Your task to perform on an android device: Add "logitech g pro" to the cart on target.com Image 0: 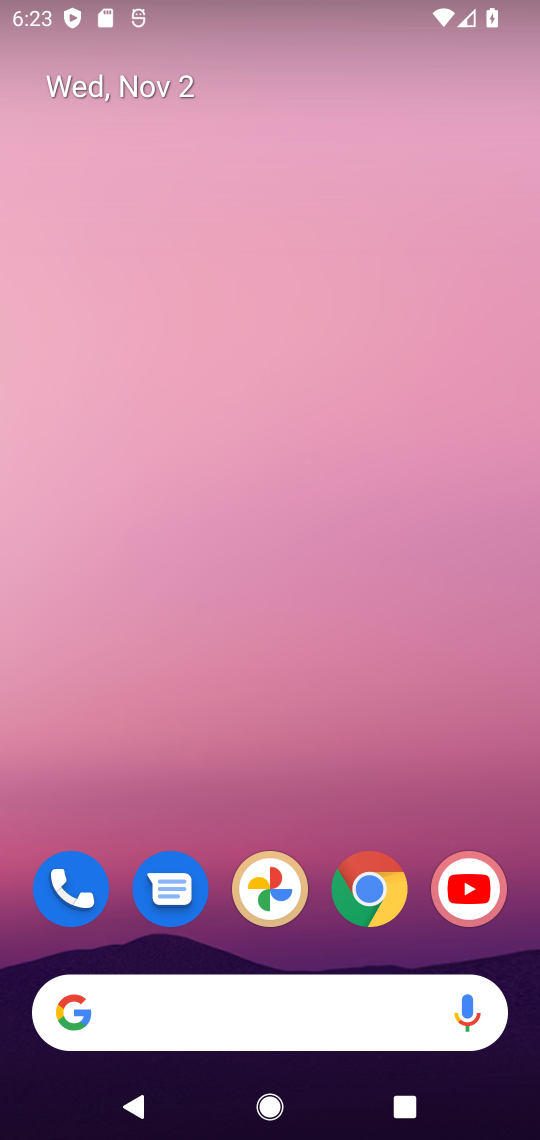
Step 0: click (389, 868)
Your task to perform on an android device: Add "logitech g pro" to the cart on target.com Image 1: 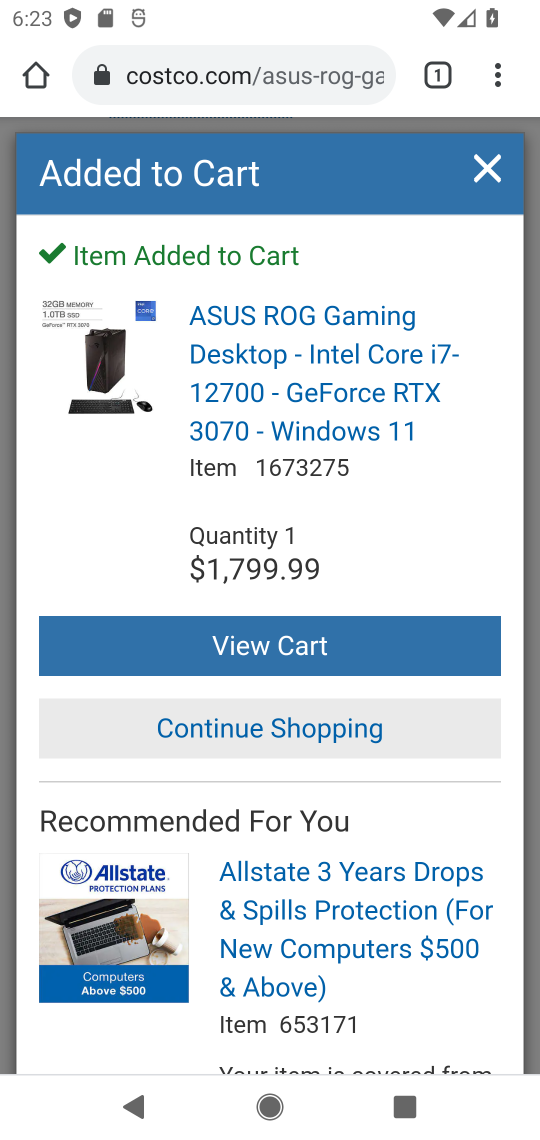
Step 1: click (321, 82)
Your task to perform on an android device: Add "logitech g pro" to the cart on target.com Image 2: 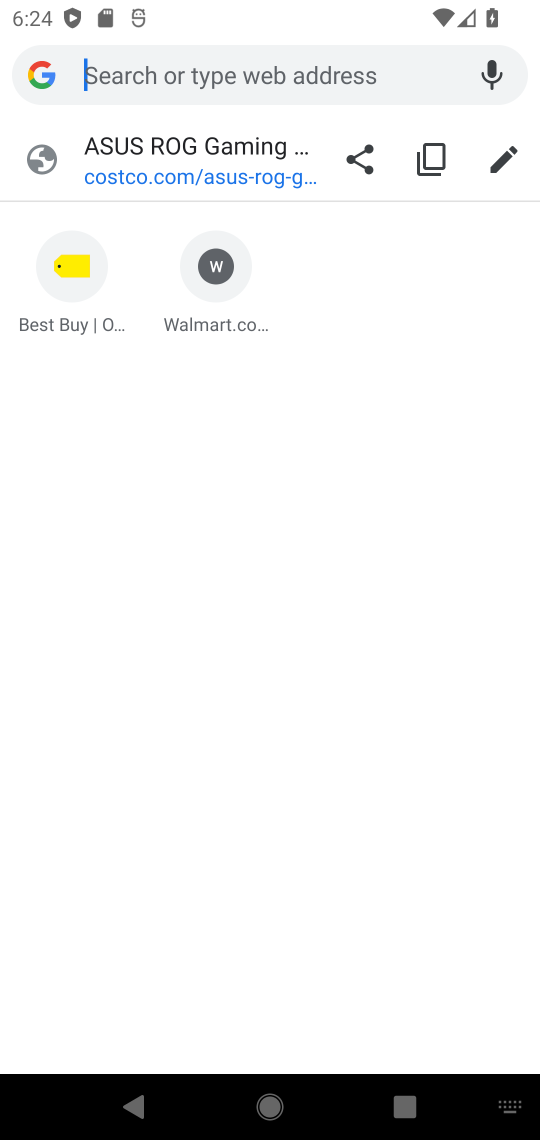
Step 2: type "target.com"
Your task to perform on an android device: Add "logitech g pro" to the cart on target.com Image 3: 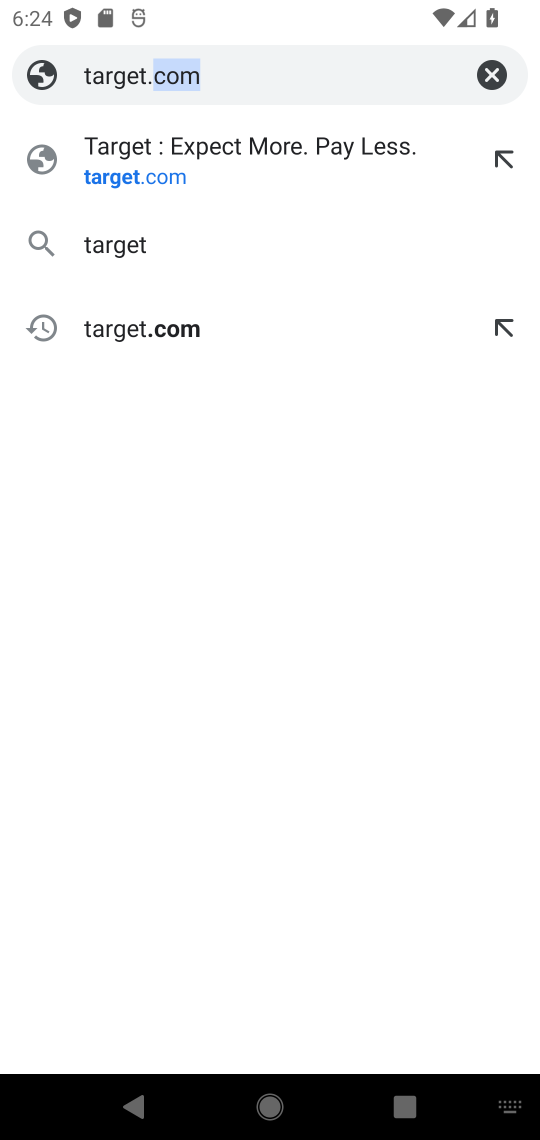
Step 3: press enter
Your task to perform on an android device: Add "logitech g pro" to the cart on target.com Image 4: 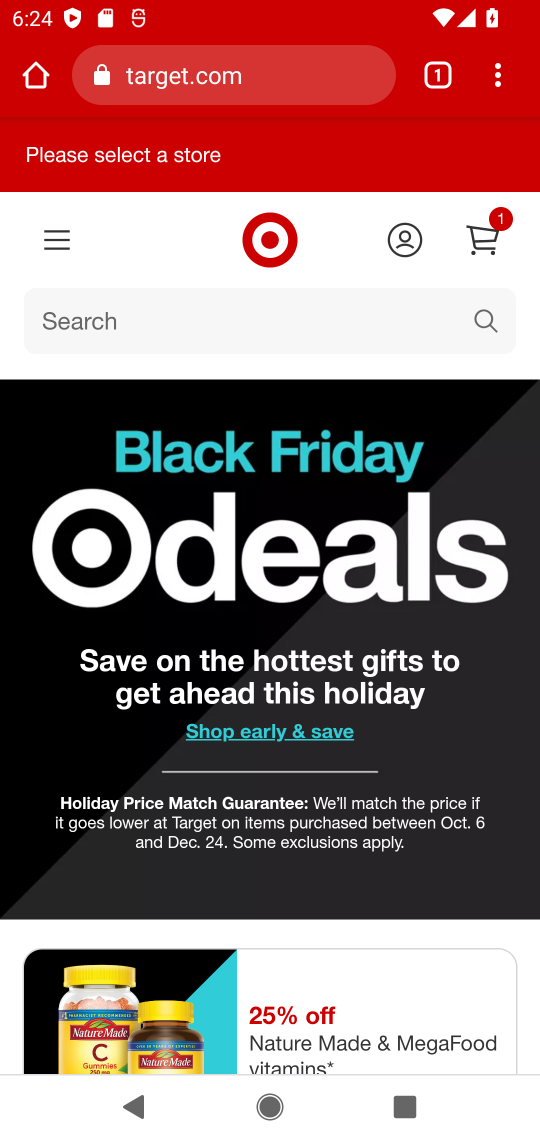
Step 4: click (300, 327)
Your task to perform on an android device: Add "logitech g pro" to the cart on target.com Image 5: 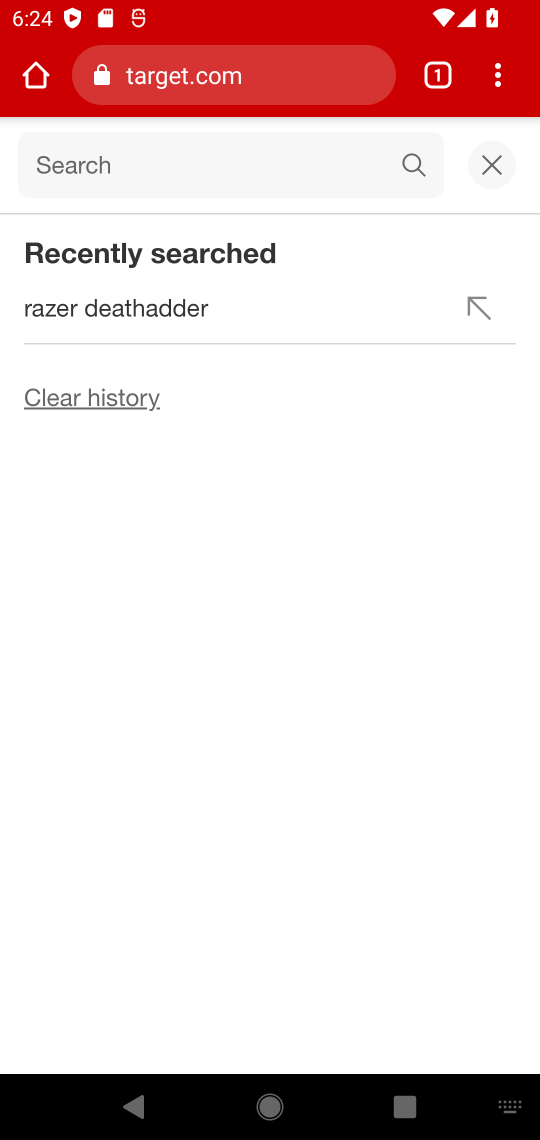
Step 5: type "logitech g pro"
Your task to perform on an android device: Add "logitech g pro" to the cart on target.com Image 6: 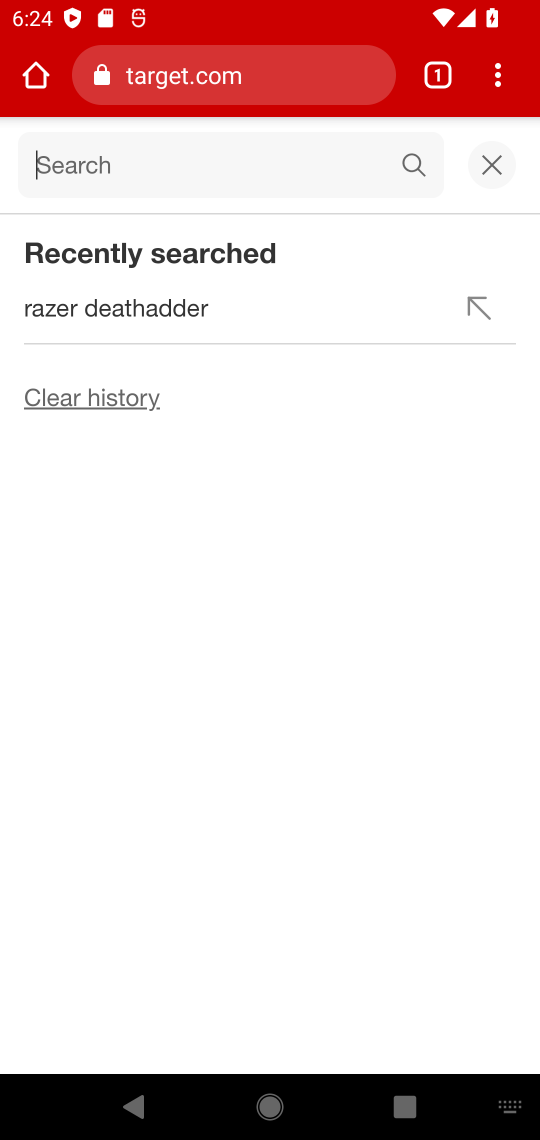
Step 6: press enter
Your task to perform on an android device: Add "logitech g pro" to the cart on target.com Image 7: 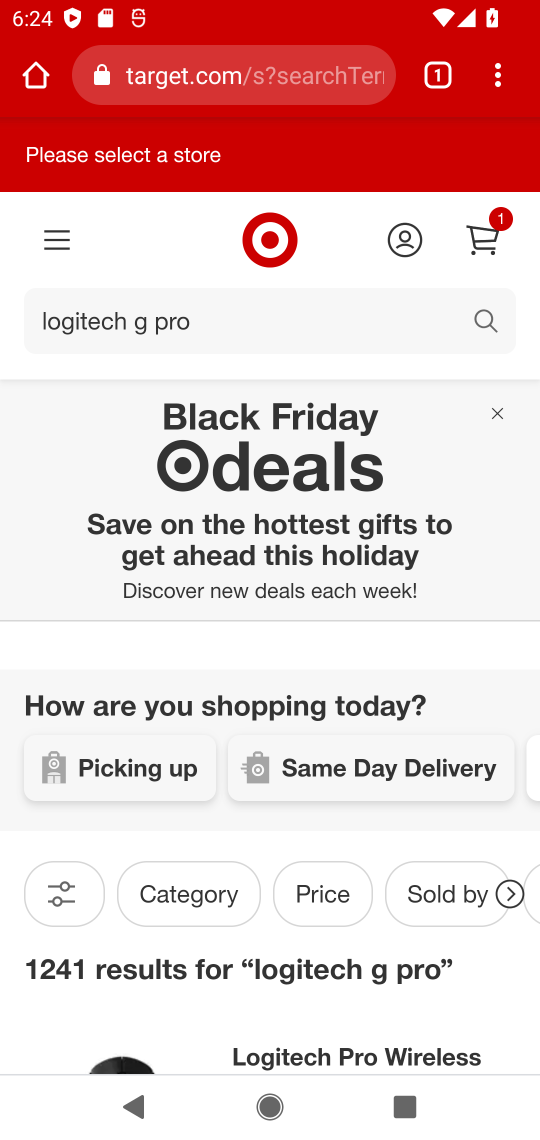
Step 7: drag from (313, 985) to (301, 618)
Your task to perform on an android device: Add "logitech g pro" to the cart on target.com Image 8: 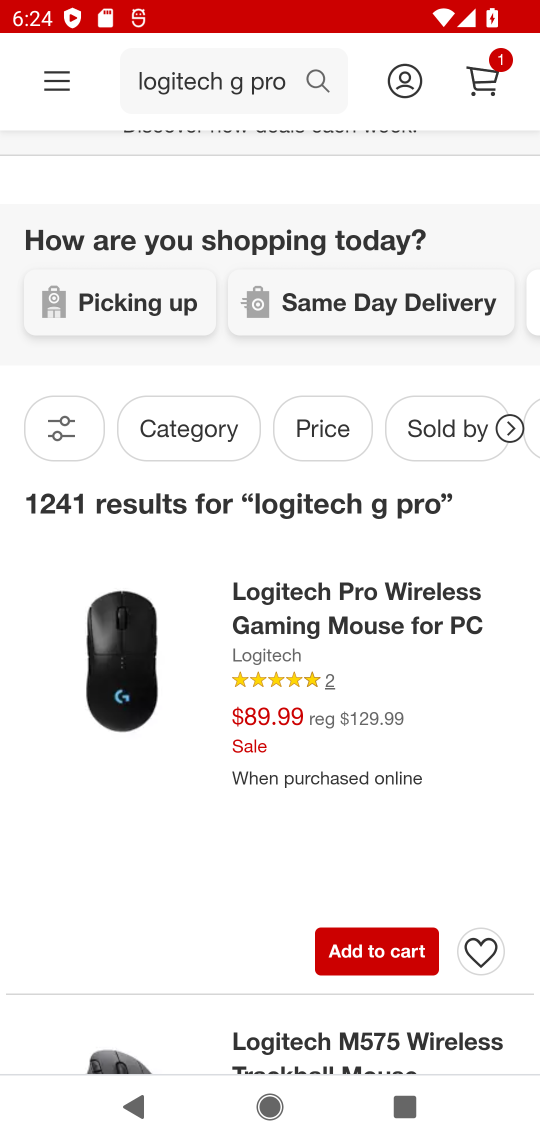
Step 8: drag from (394, 694) to (414, 398)
Your task to perform on an android device: Add "logitech g pro" to the cart on target.com Image 9: 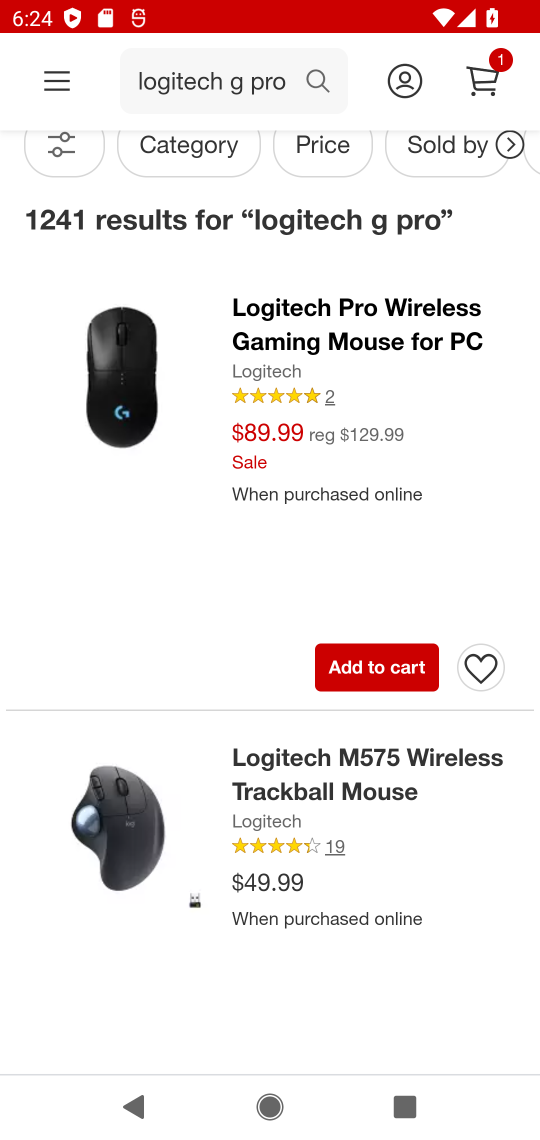
Step 9: drag from (390, 956) to (444, 481)
Your task to perform on an android device: Add "logitech g pro" to the cart on target.com Image 10: 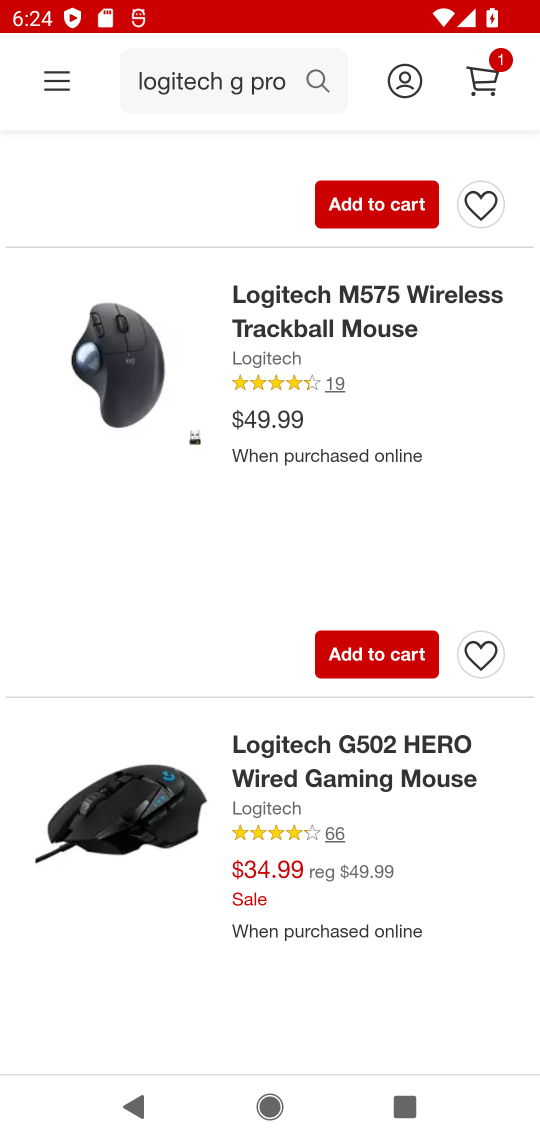
Step 10: drag from (456, 862) to (493, 423)
Your task to perform on an android device: Add "logitech g pro" to the cart on target.com Image 11: 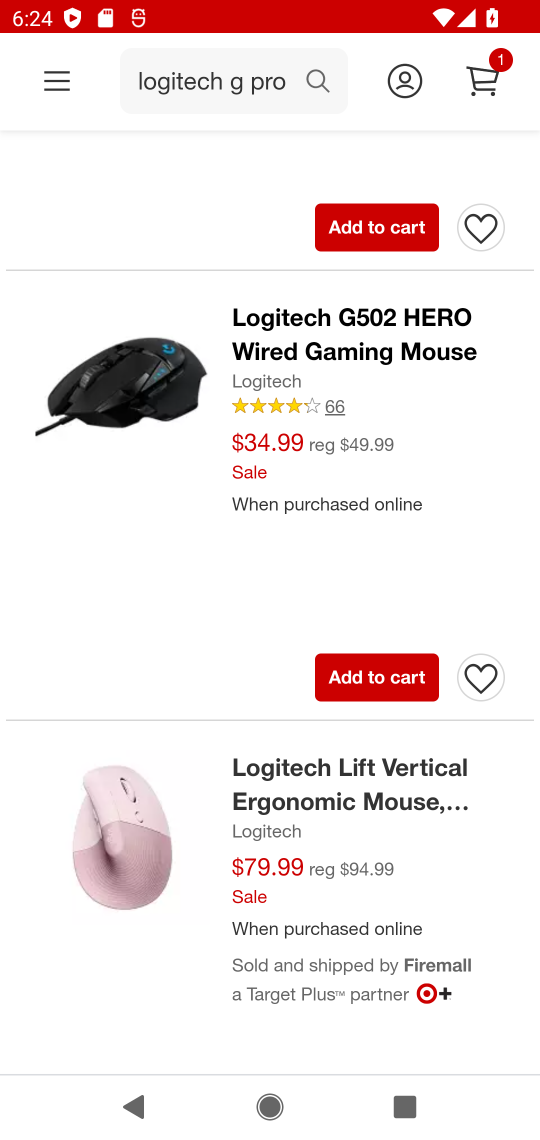
Step 11: drag from (434, 894) to (407, 495)
Your task to perform on an android device: Add "logitech g pro" to the cart on target.com Image 12: 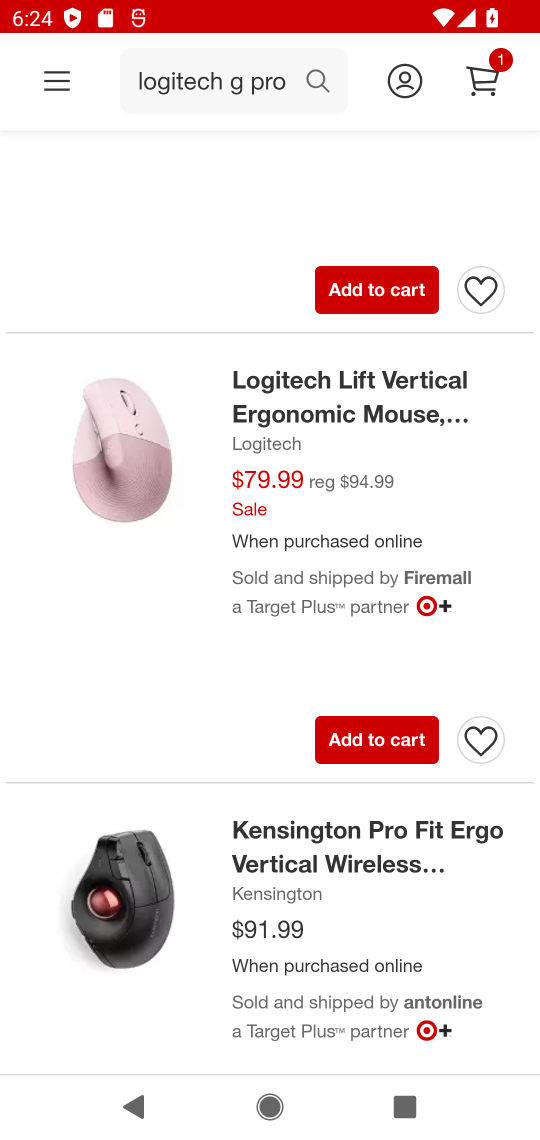
Step 12: drag from (427, 932) to (442, 508)
Your task to perform on an android device: Add "logitech g pro" to the cart on target.com Image 13: 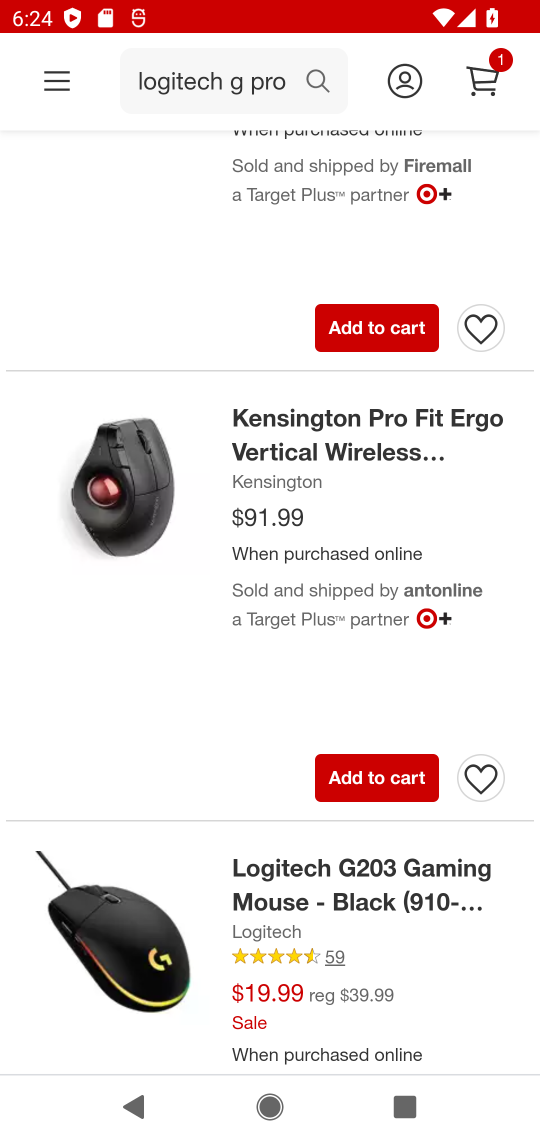
Step 13: drag from (409, 463) to (485, 1023)
Your task to perform on an android device: Add "logitech g pro" to the cart on target.com Image 14: 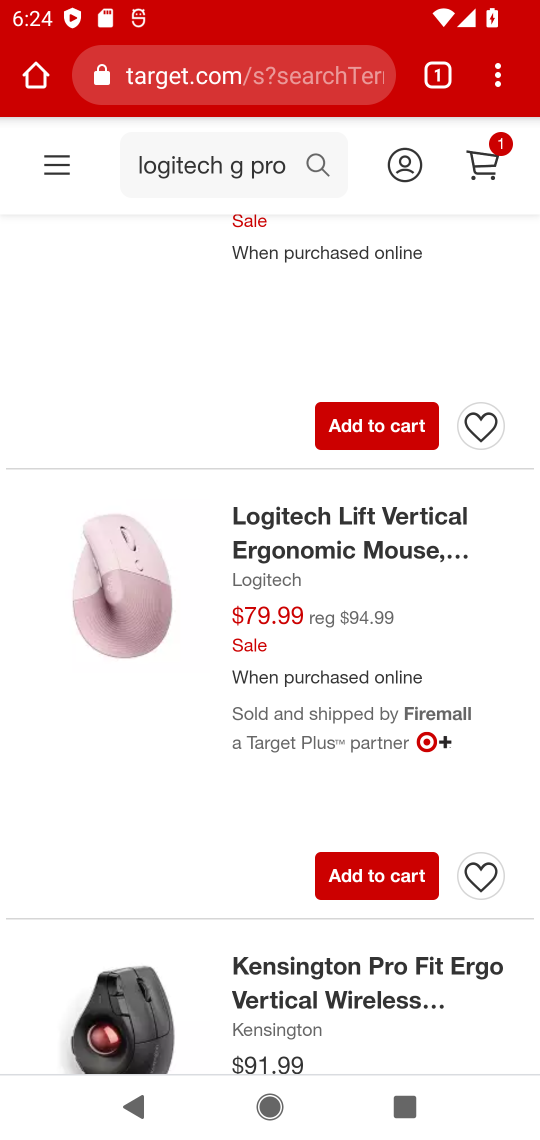
Step 14: drag from (420, 526) to (412, 900)
Your task to perform on an android device: Add "logitech g pro" to the cart on target.com Image 15: 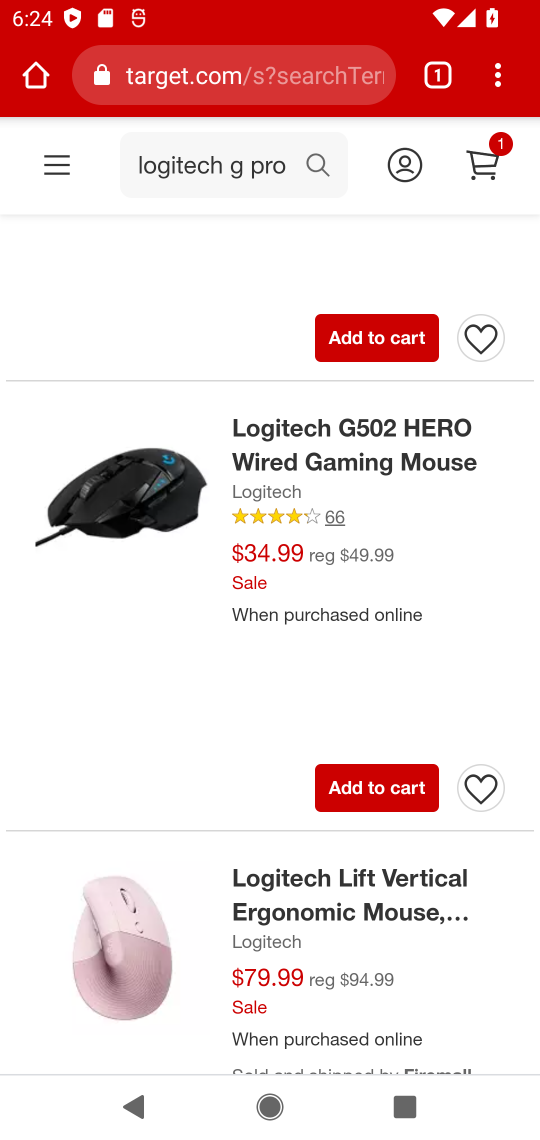
Step 15: drag from (370, 416) to (401, 911)
Your task to perform on an android device: Add "logitech g pro" to the cart on target.com Image 16: 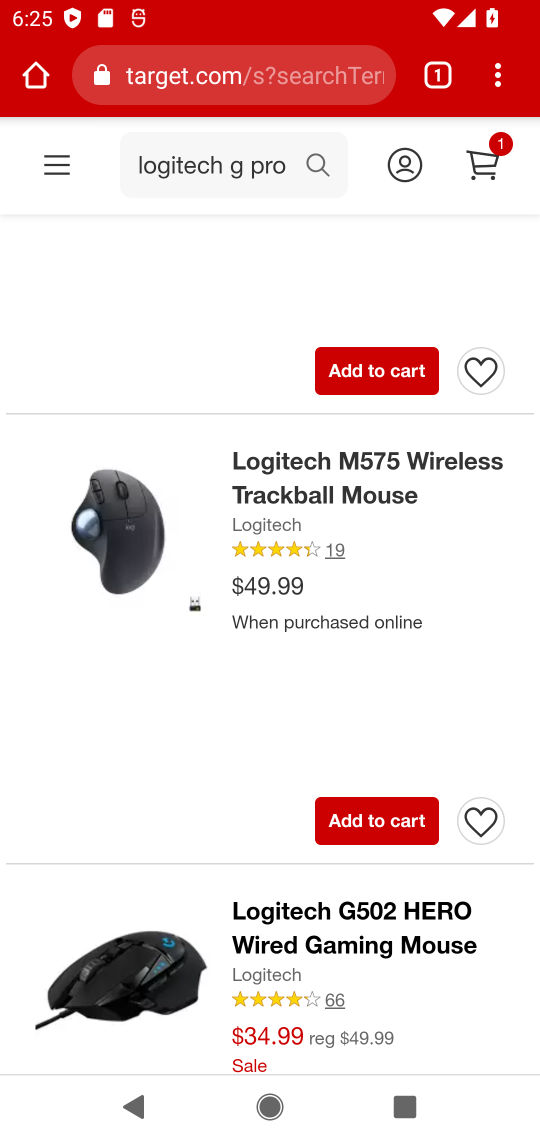
Step 16: drag from (217, 337) to (260, 847)
Your task to perform on an android device: Add "logitech g pro" to the cart on target.com Image 17: 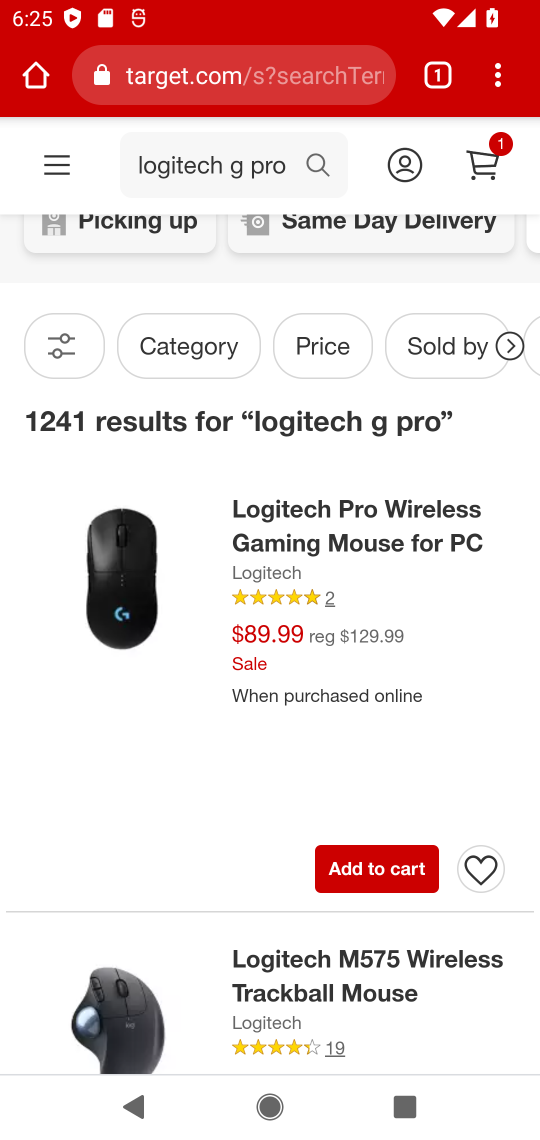
Step 17: click (120, 565)
Your task to perform on an android device: Add "logitech g pro" to the cart on target.com Image 18: 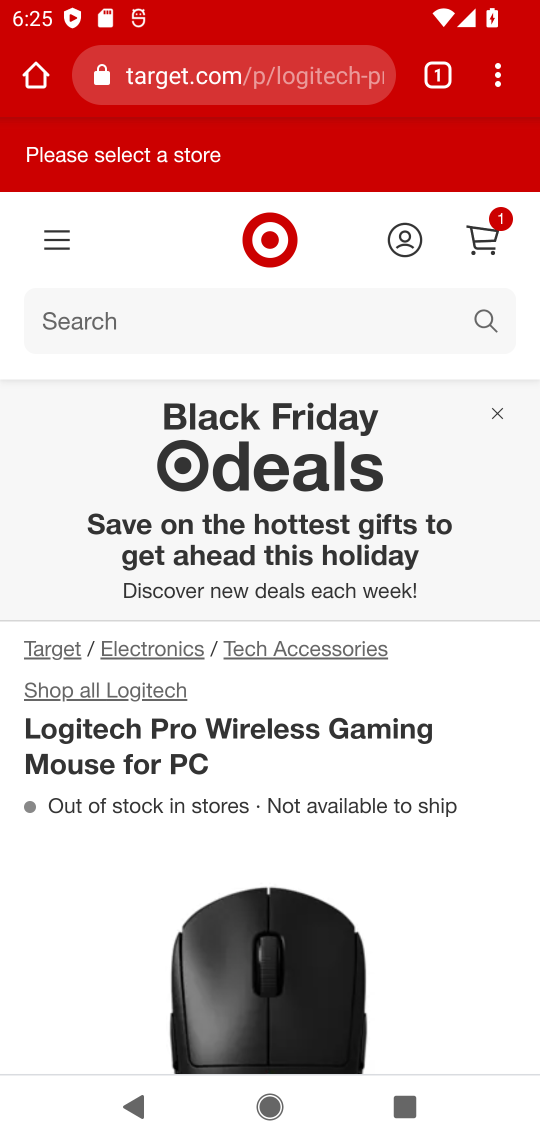
Step 18: drag from (387, 925) to (337, 380)
Your task to perform on an android device: Add "logitech g pro" to the cart on target.com Image 19: 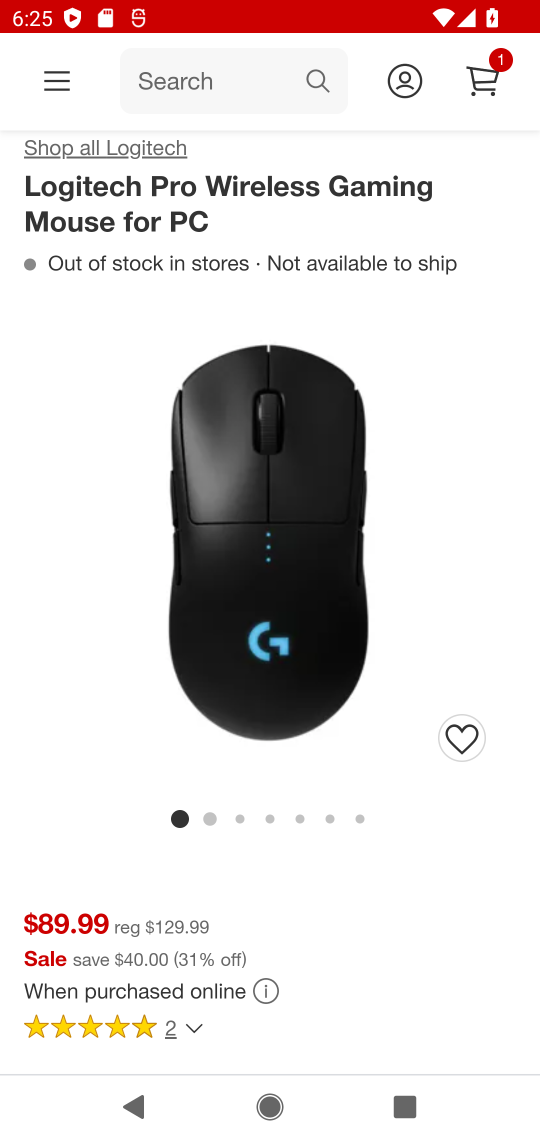
Step 19: drag from (374, 828) to (430, 332)
Your task to perform on an android device: Add "logitech g pro" to the cart on target.com Image 20: 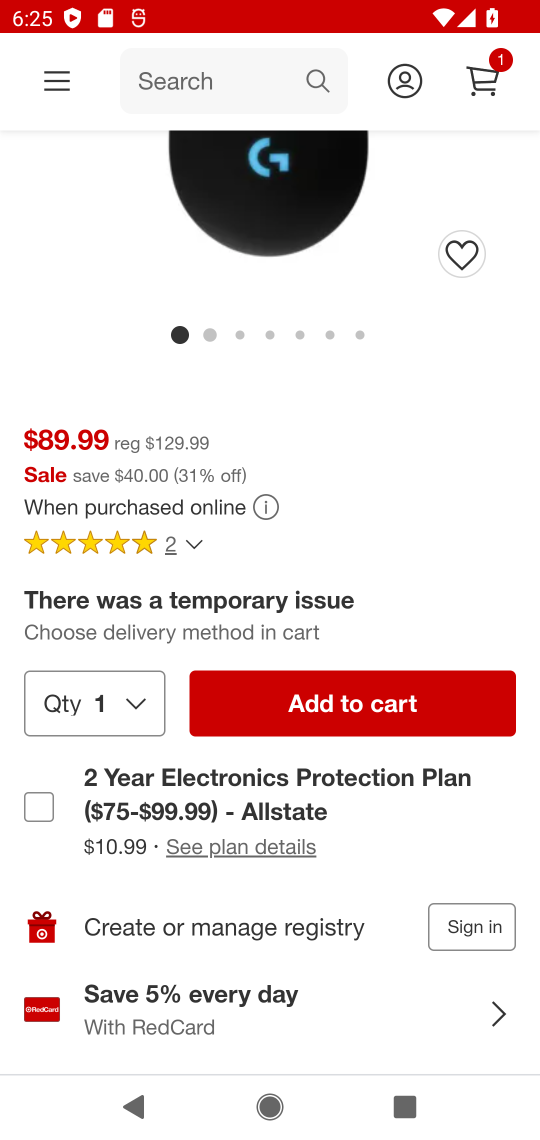
Step 20: click (455, 701)
Your task to perform on an android device: Add "logitech g pro" to the cart on target.com Image 21: 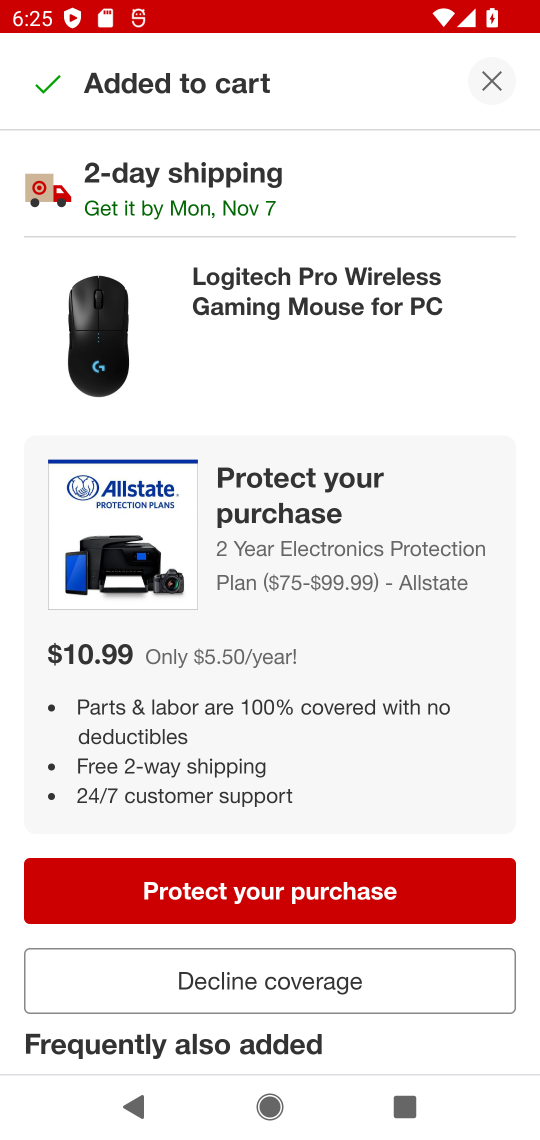
Step 21: task complete